Your task to perform on an android device: turn on improve location accuracy Image 0: 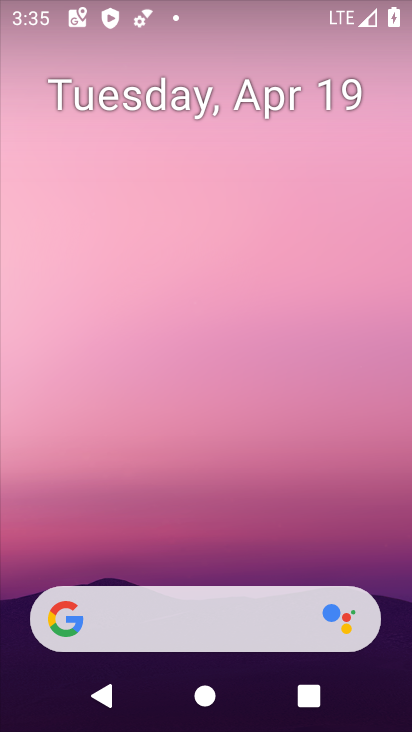
Step 0: click (196, 211)
Your task to perform on an android device: turn on improve location accuracy Image 1: 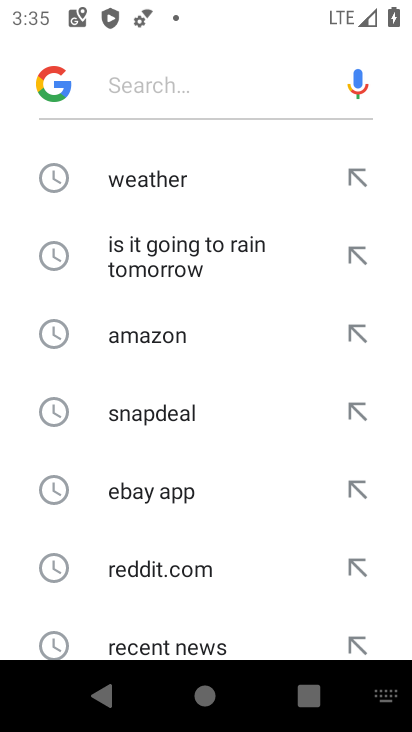
Step 1: press home button
Your task to perform on an android device: turn on improve location accuracy Image 2: 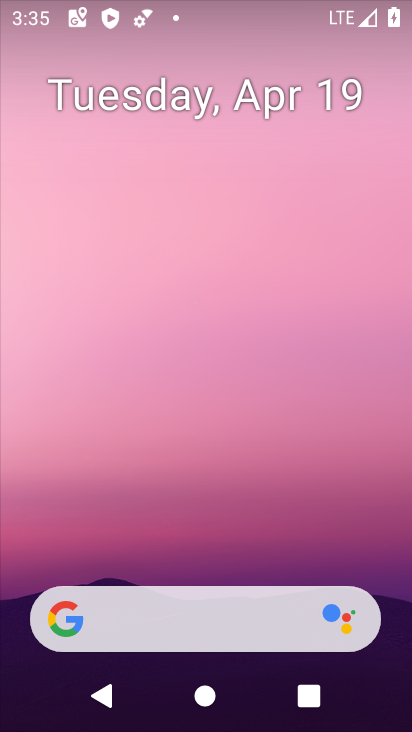
Step 2: drag from (246, 539) to (293, 86)
Your task to perform on an android device: turn on improve location accuracy Image 3: 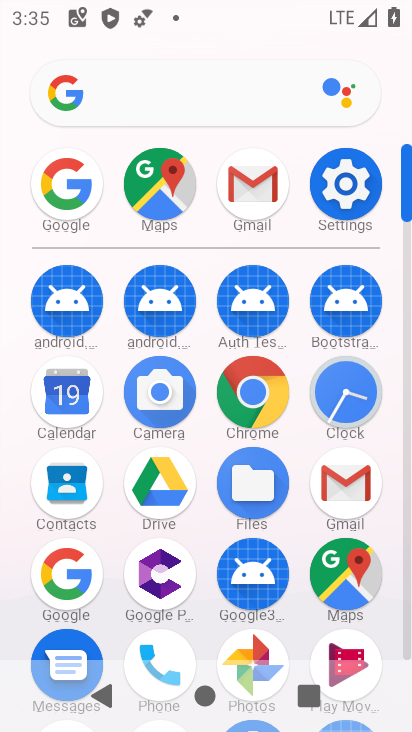
Step 3: click (345, 188)
Your task to perform on an android device: turn on improve location accuracy Image 4: 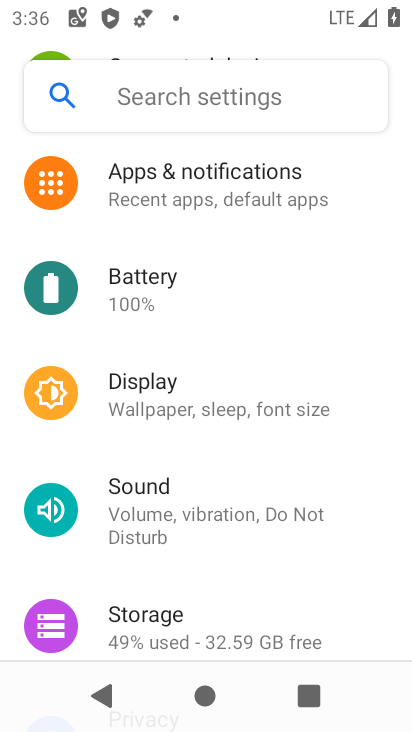
Step 4: drag from (207, 569) to (226, 435)
Your task to perform on an android device: turn on improve location accuracy Image 5: 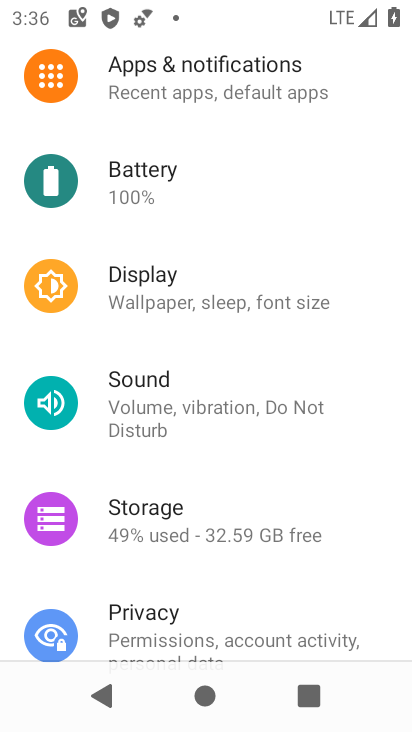
Step 5: drag from (235, 579) to (233, 493)
Your task to perform on an android device: turn on improve location accuracy Image 6: 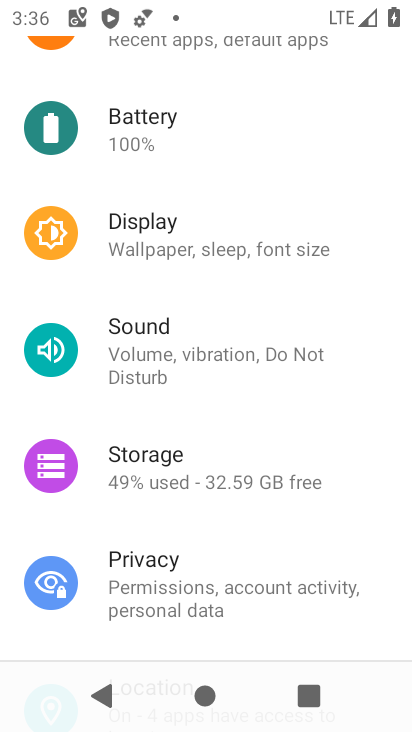
Step 6: drag from (225, 603) to (225, 487)
Your task to perform on an android device: turn on improve location accuracy Image 7: 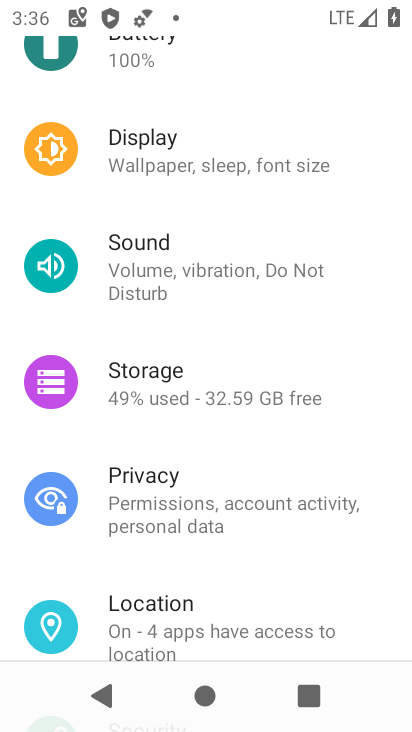
Step 7: drag from (235, 602) to (231, 498)
Your task to perform on an android device: turn on improve location accuracy Image 8: 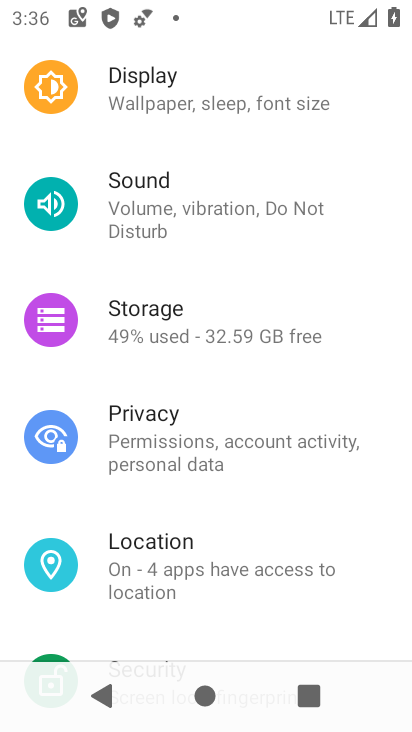
Step 8: click (179, 548)
Your task to perform on an android device: turn on improve location accuracy Image 9: 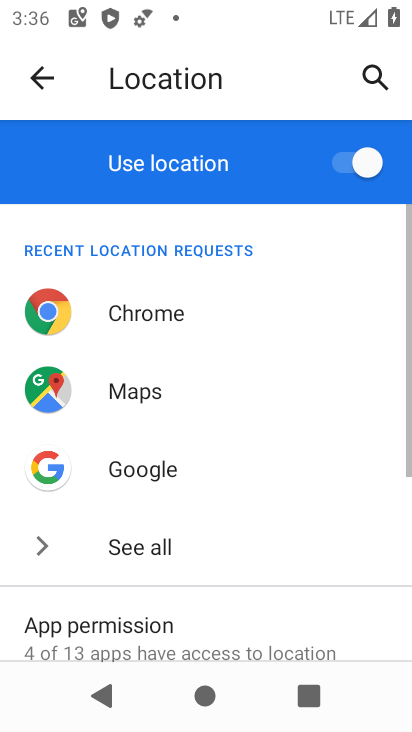
Step 9: drag from (212, 606) to (239, 506)
Your task to perform on an android device: turn on improve location accuracy Image 10: 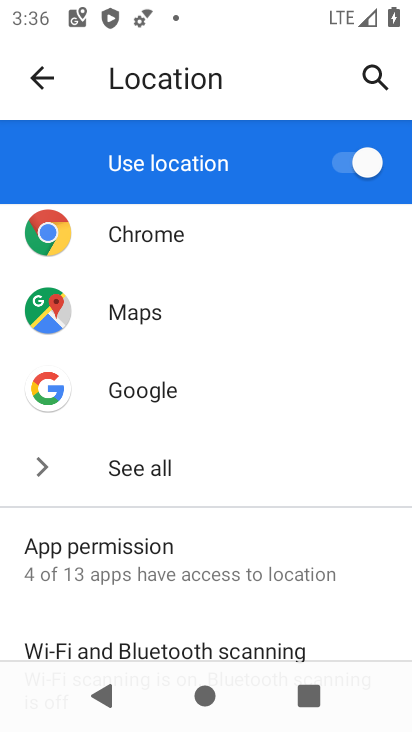
Step 10: drag from (197, 608) to (232, 502)
Your task to perform on an android device: turn on improve location accuracy Image 11: 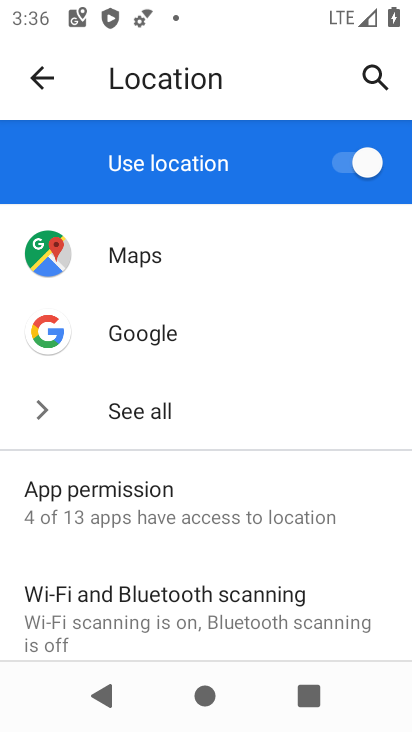
Step 11: drag from (219, 551) to (264, 459)
Your task to perform on an android device: turn on improve location accuracy Image 12: 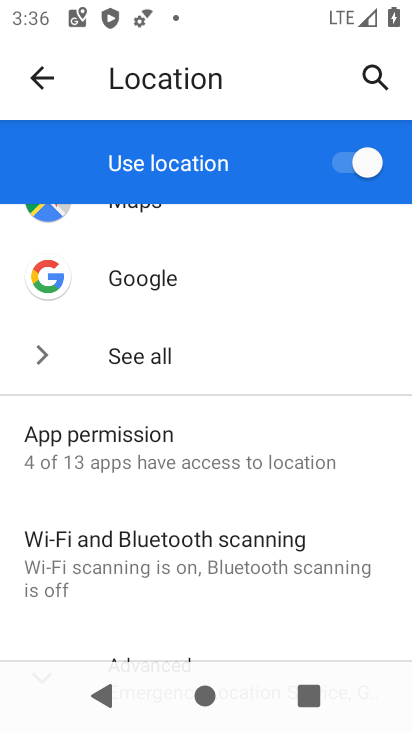
Step 12: drag from (221, 605) to (290, 483)
Your task to perform on an android device: turn on improve location accuracy Image 13: 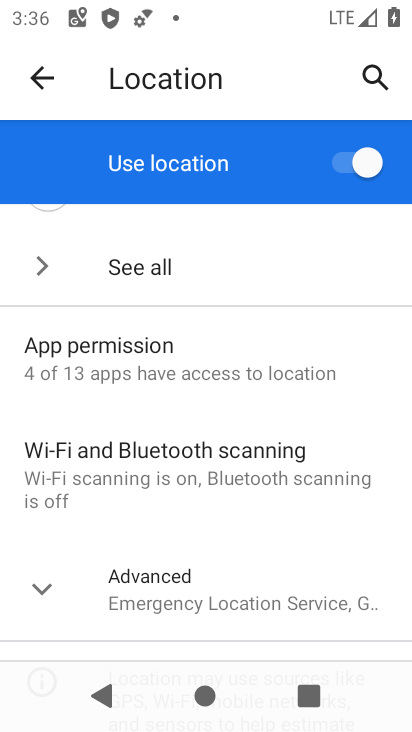
Step 13: drag from (243, 572) to (304, 481)
Your task to perform on an android device: turn on improve location accuracy Image 14: 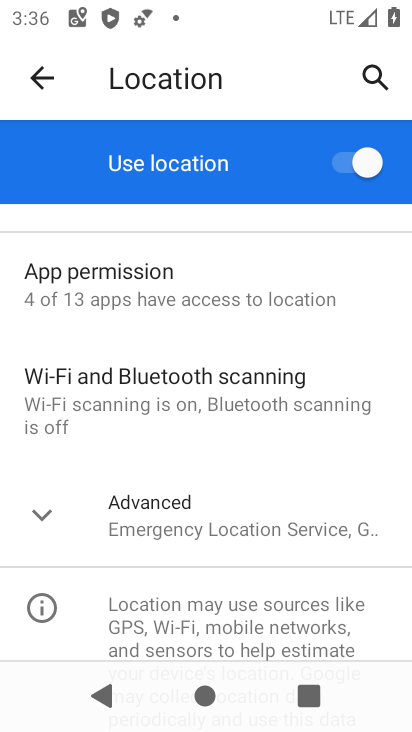
Step 14: click (242, 538)
Your task to perform on an android device: turn on improve location accuracy Image 15: 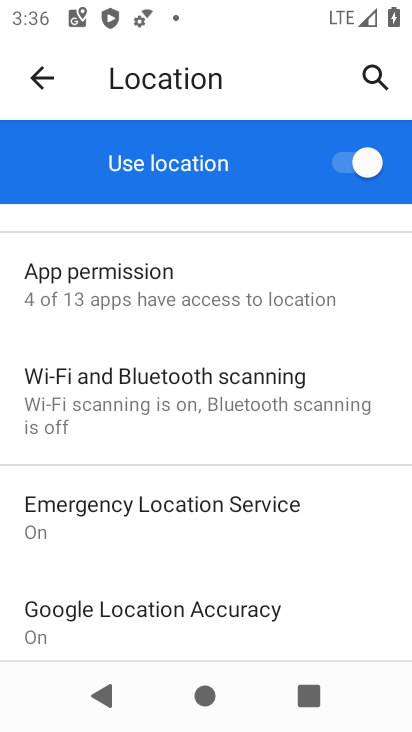
Step 15: drag from (234, 575) to (321, 476)
Your task to perform on an android device: turn on improve location accuracy Image 16: 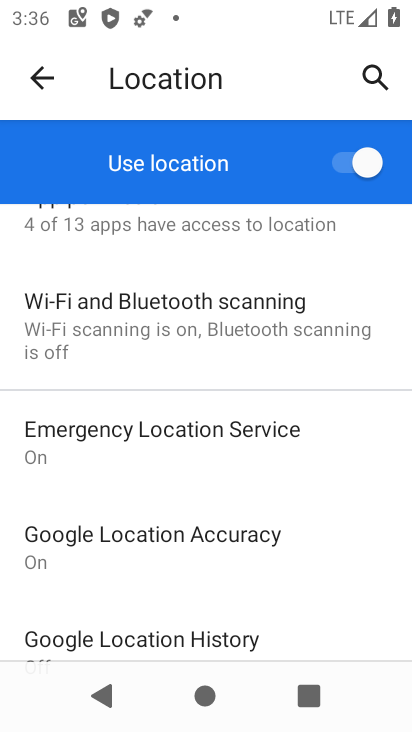
Step 16: click (269, 555)
Your task to perform on an android device: turn on improve location accuracy Image 17: 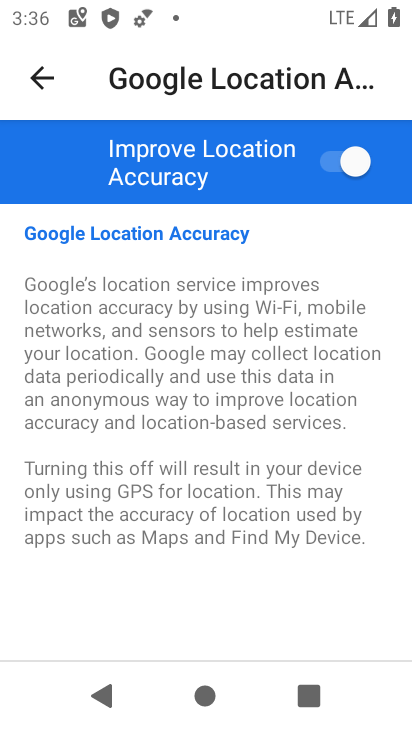
Step 17: task complete